Your task to perform on an android device: turn off data saver in the chrome app Image 0: 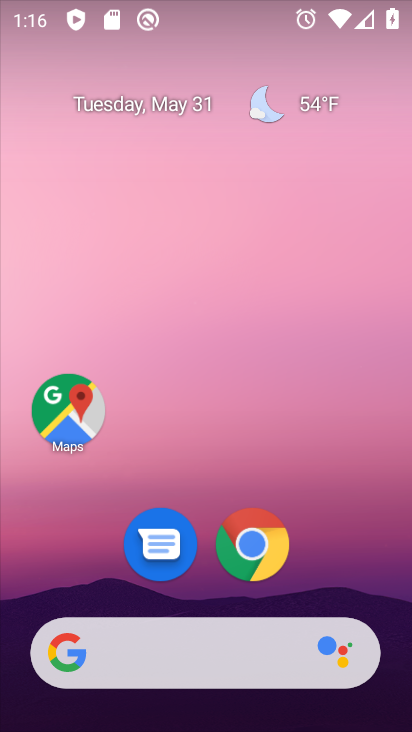
Step 0: click (251, 550)
Your task to perform on an android device: turn off data saver in the chrome app Image 1: 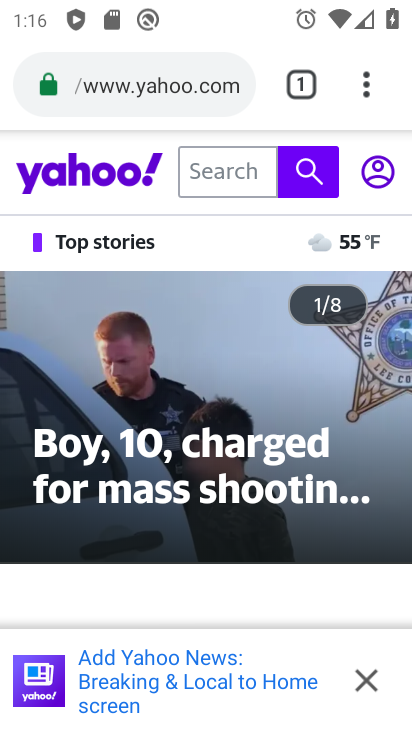
Step 1: click (371, 87)
Your task to perform on an android device: turn off data saver in the chrome app Image 2: 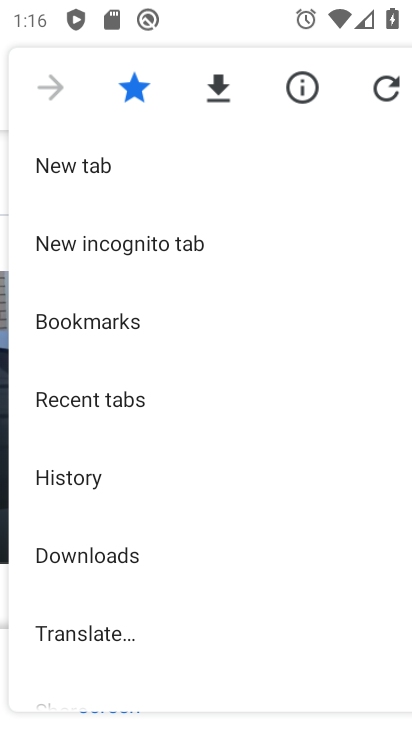
Step 2: drag from (167, 624) to (183, 258)
Your task to perform on an android device: turn off data saver in the chrome app Image 3: 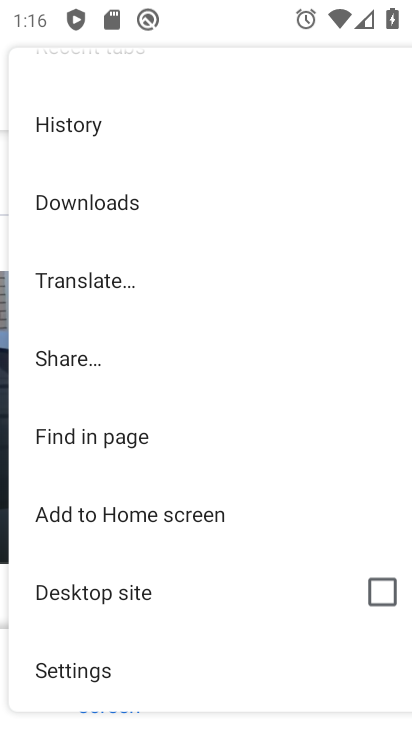
Step 3: click (148, 669)
Your task to perform on an android device: turn off data saver in the chrome app Image 4: 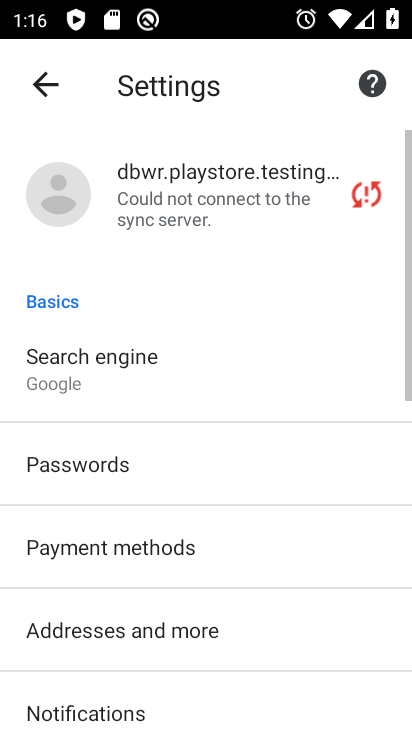
Step 4: drag from (181, 659) to (219, 323)
Your task to perform on an android device: turn off data saver in the chrome app Image 5: 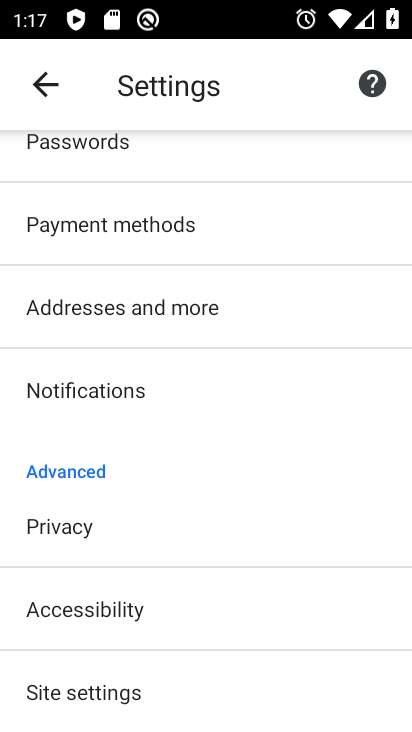
Step 5: drag from (160, 650) to (173, 324)
Your task to perform on an android device: turn off data saver in the chrome app Image 6: 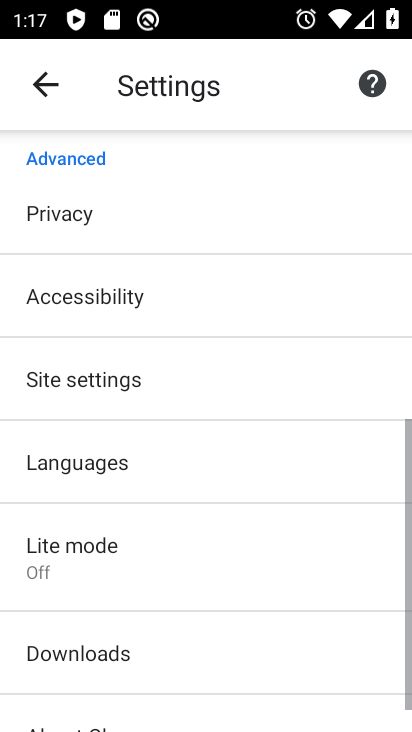
Step 6: click (122, 548)
Your task to perform on an android device: turn off data saver in the chrome app Image 7: 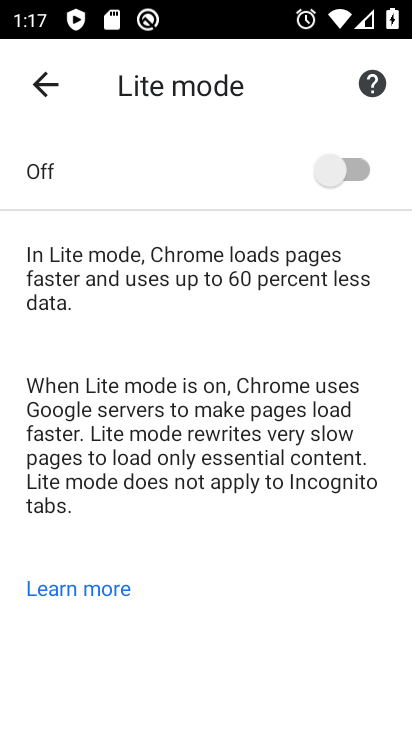
Step 7: task complete